Your task to perform on an android device: Open Yahoo.com Image 0: 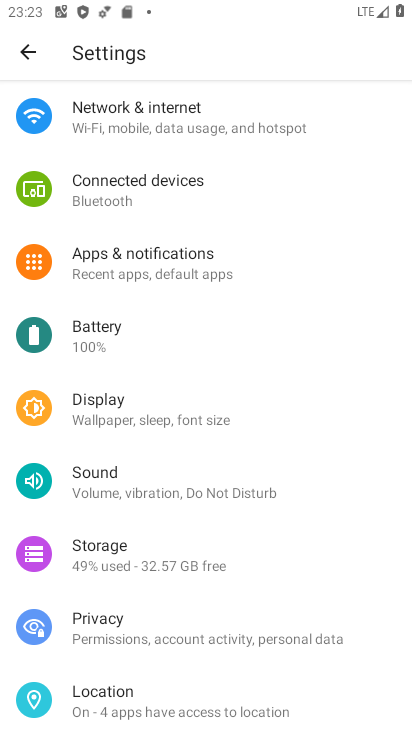
Step 0: press home button
Your task to perform on an android device: Open Yahoo.com Image 1: 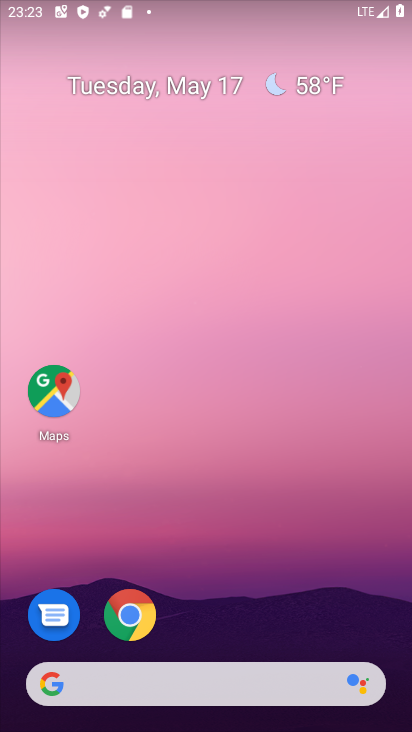
Step 1: click (129, 627)
Your task to perform on an android device: Open Yahoo.com Image 2: 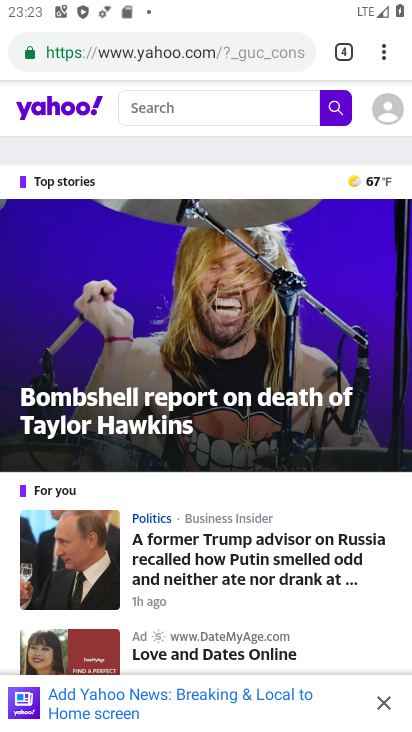
Step 2: task complete